Your task to perform on an android device: toggle translation in the chrome app Image 0: 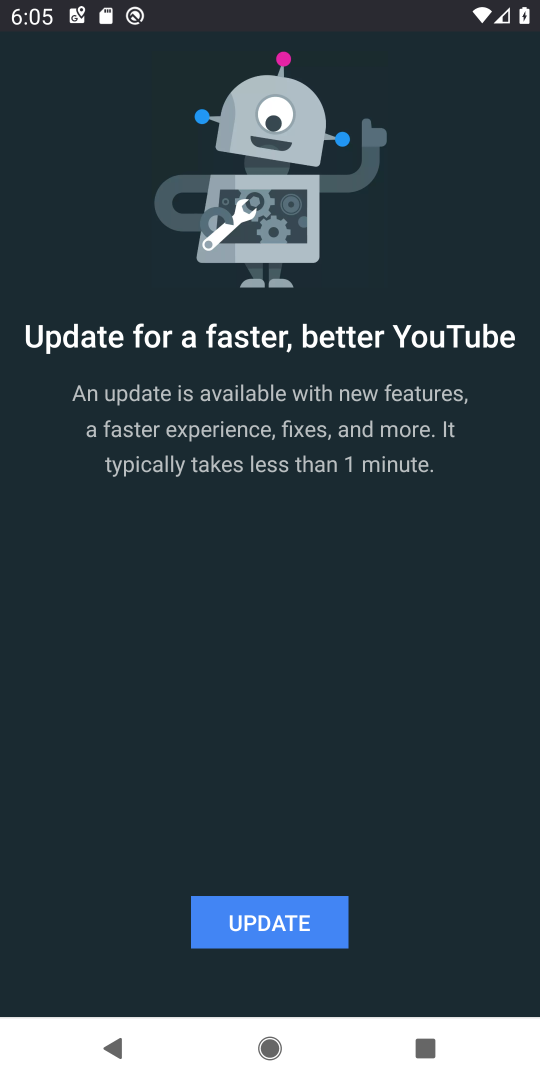
Step 0: press home button
Your task to perform on an android device: toggle translation in the chrome app Image 1: 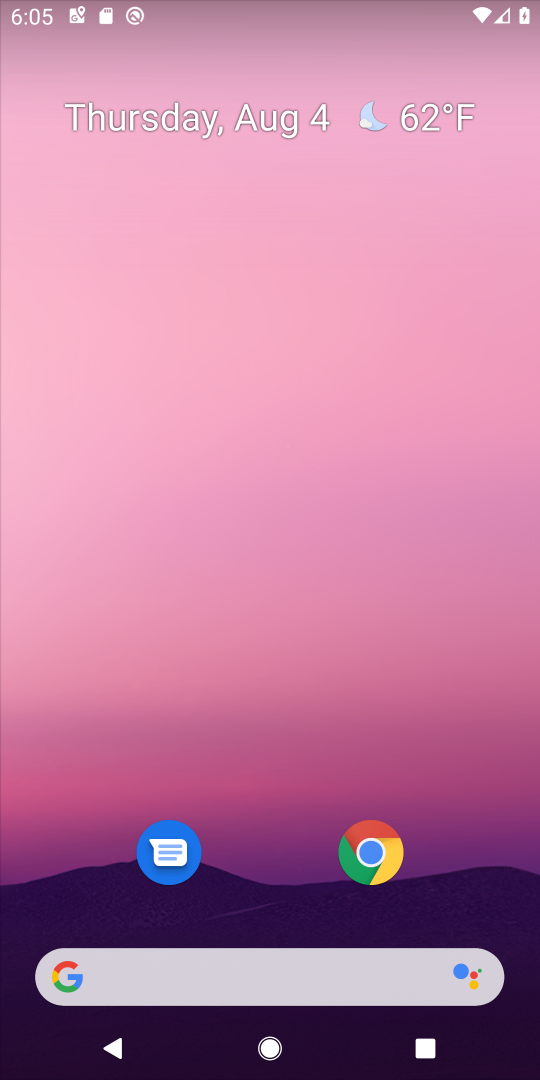
Step 1: click (373, 862)
Your task to perform on an android device: toggle translation in the chrome app Image 2: 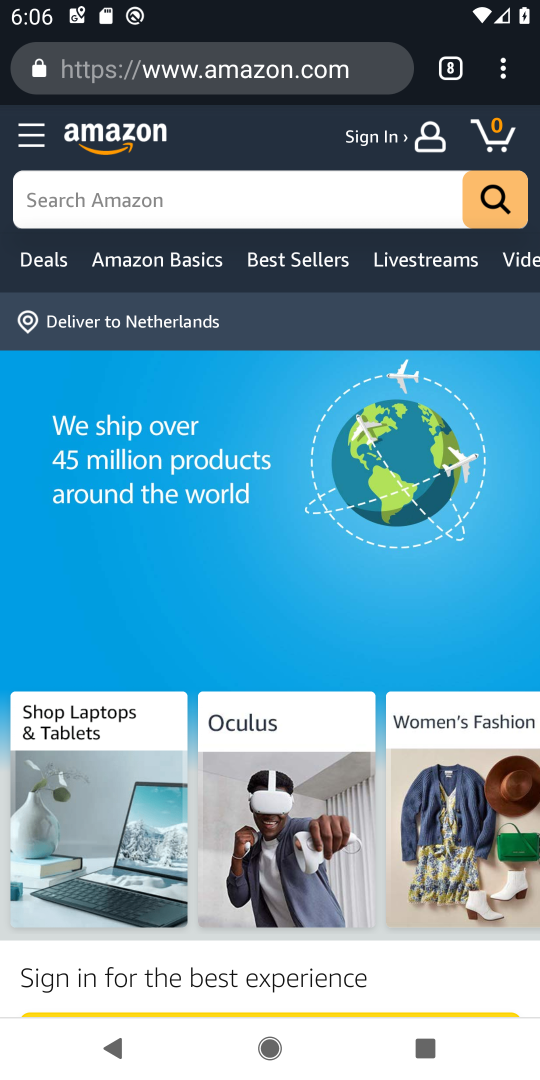
Step 2: click (507, 78)
Your task to perform on an android device: toggle translation in the chrome app Image 3: 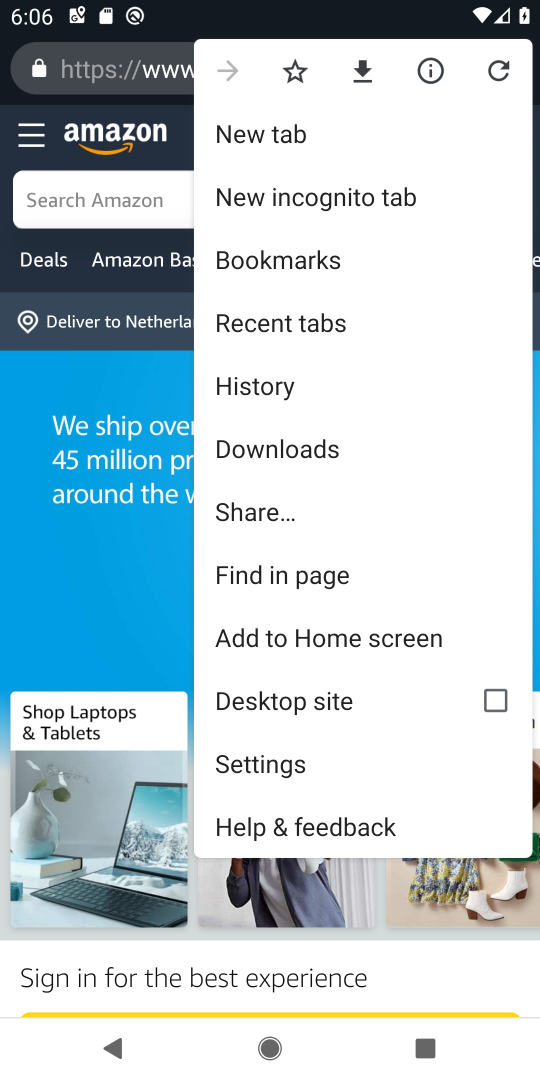
Step 3: click (257, 764)
Your task to perform on an android device: toggle translation in the chrome app Image 4: 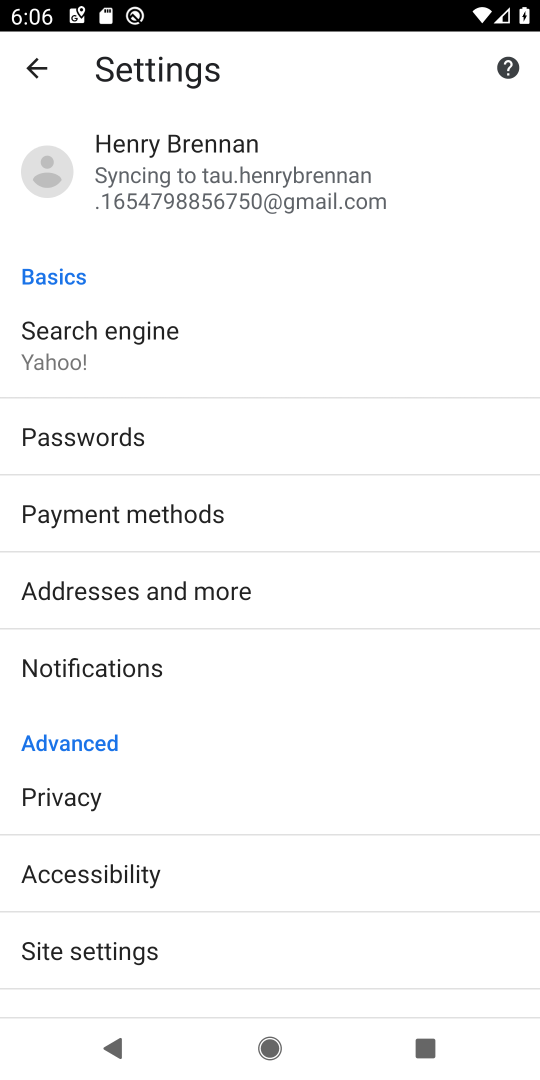
Step 4: drag from (155, 993) to (167, 585)
Your task to perform on an android device: toggle translation in the chrome app Image 5: 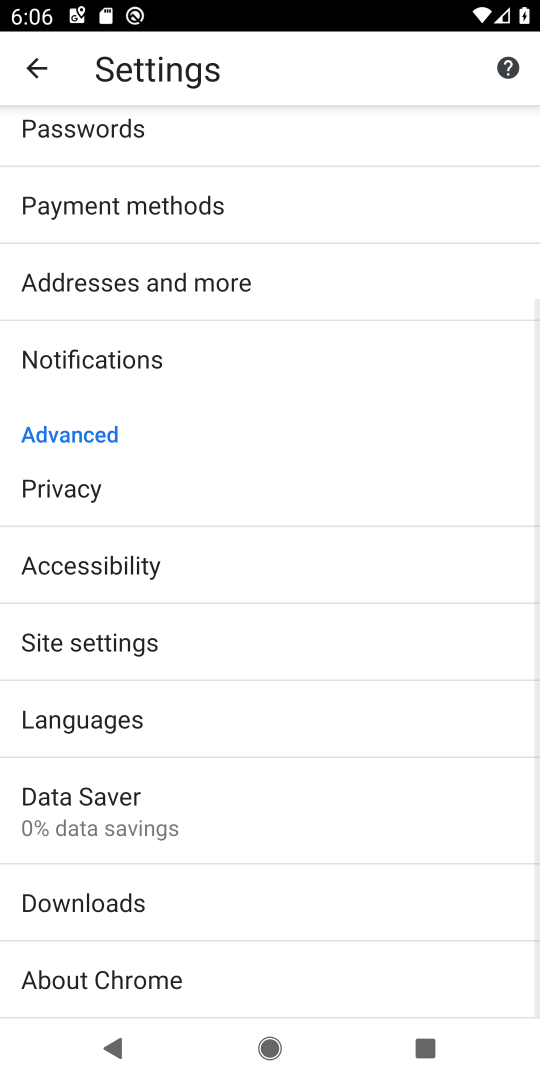
Step 5: click (119, 720)
Your task to perform on an android device: toggle translation in the chrome app Image 6: 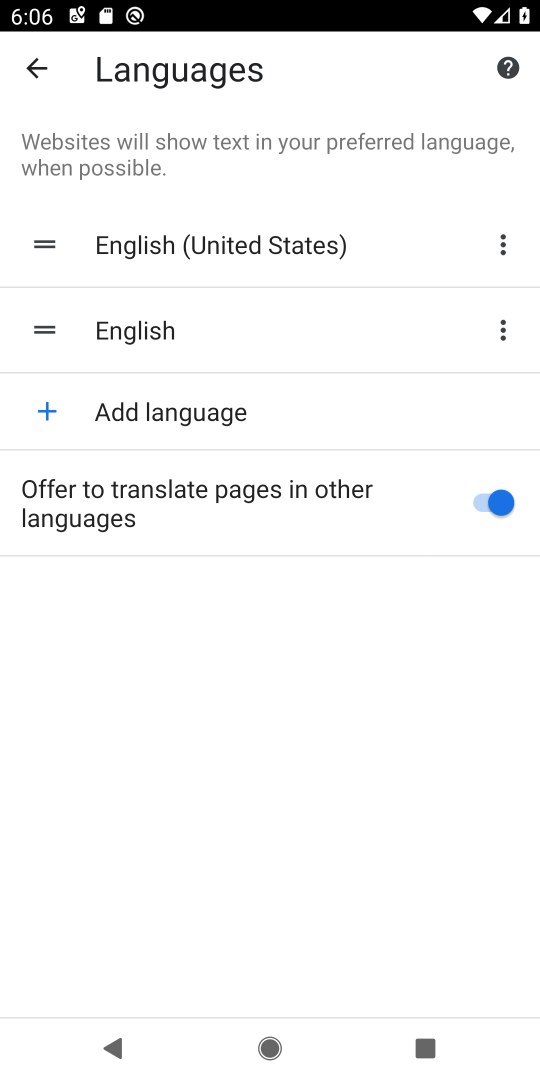
Step 6: click (490, 501)
Your task to perform on an android device: toggle translation in the chrome app Image 7: 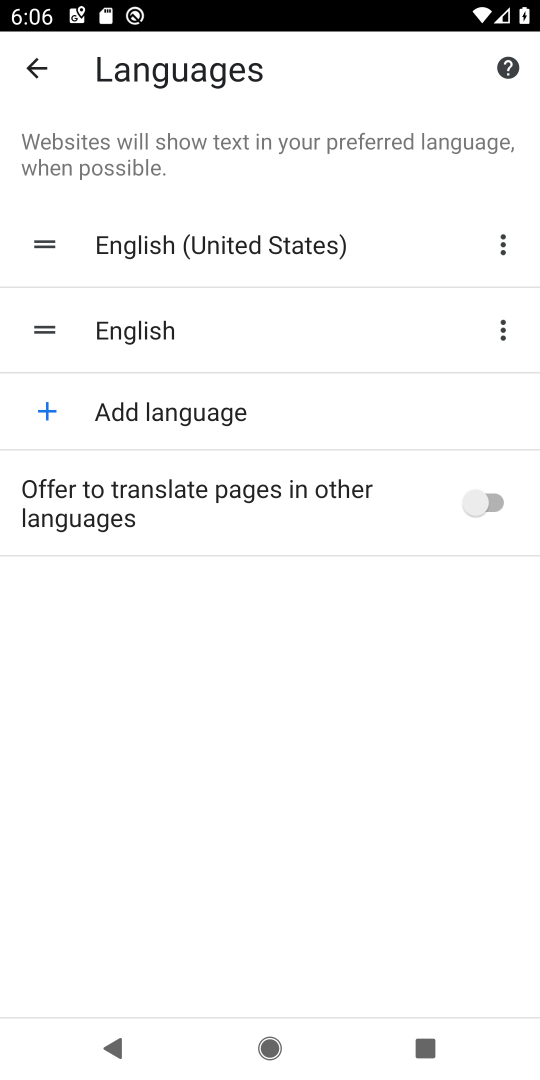
Step 7: task complete